Your task to perform on an android device: check android version Image 0: 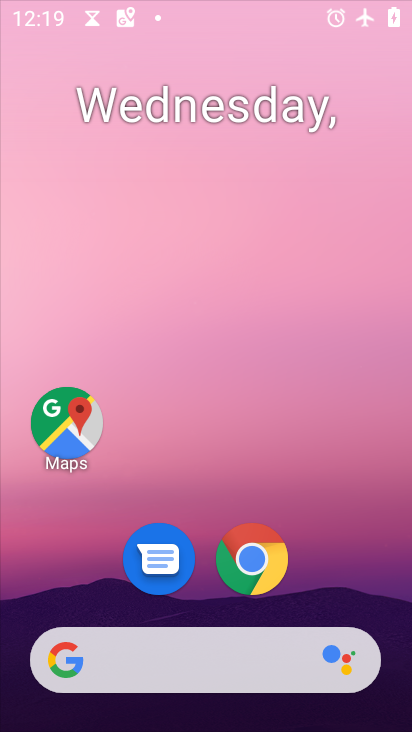
Step 0: press home button
Your task to perform on an android device: check android version Image 1: 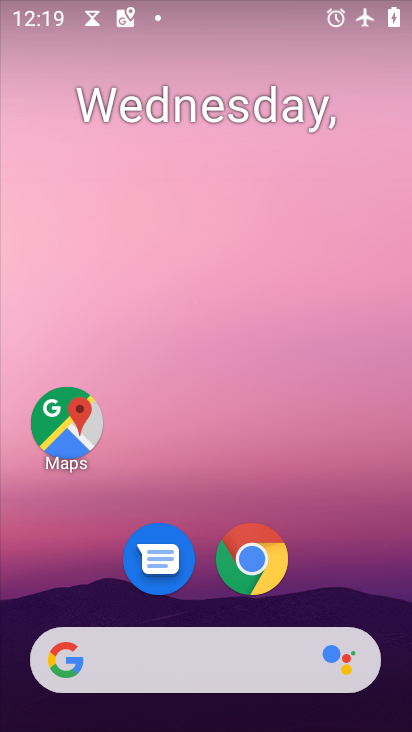
Step 1: drag from (352, 536) to (382, 18)
Your task to perform on an android device: check android version Image 2: 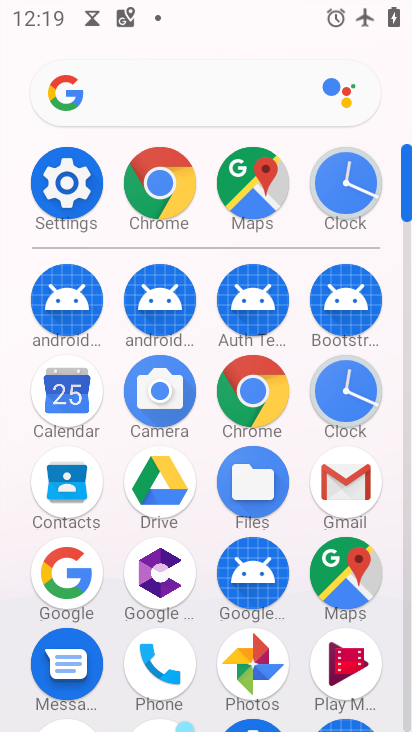
Step 2: click (59, 191)
Your task to perform on an android device: check android version Image 3: 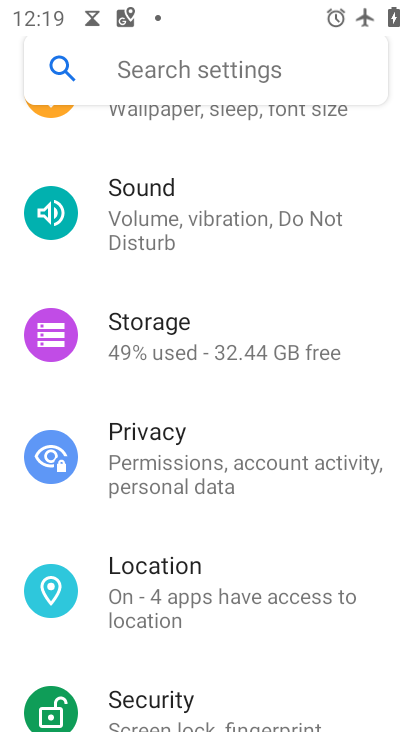
Step 3: drag from (292, 578) to (244, 41)
Your task to perform on an android device: check android version Image 4: 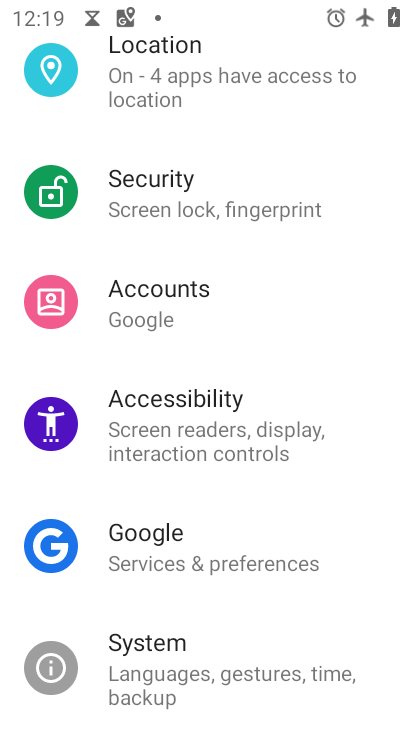
Step 4: drag from (278, 591) to (289, 86)
Your task to perform on an android device: check android version Image 5: 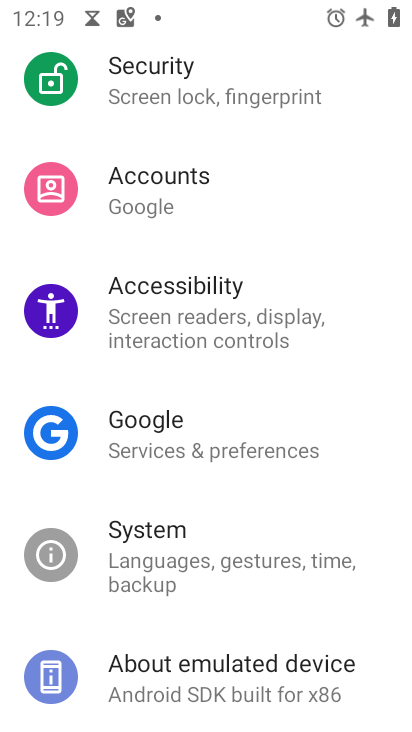
Step 5: click (224, 667)
Your task to perform on an android device: check android version Image 6: 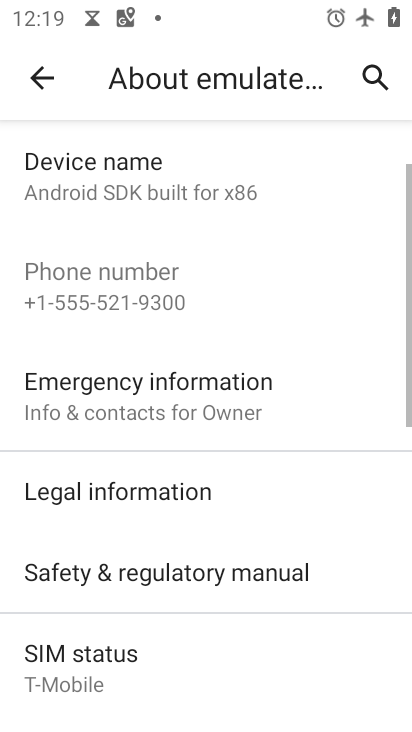
Step 6: drag from (216, 639) to (191, 179)
Your task to perform on an android device: check android version Image 7: 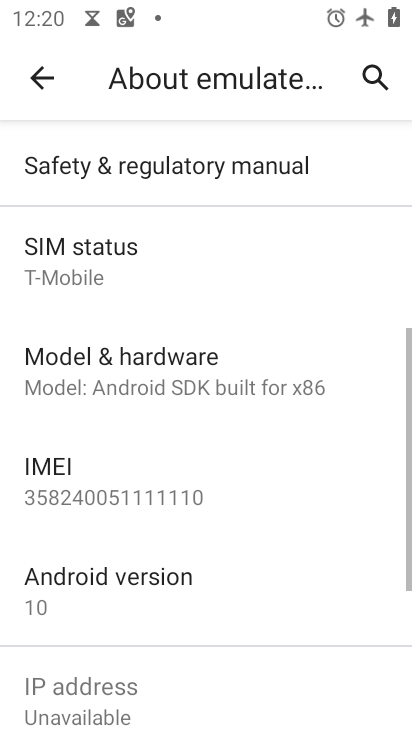
Step 7: click (54, 602)
Your task to perform on an android device: check android version Image 8: 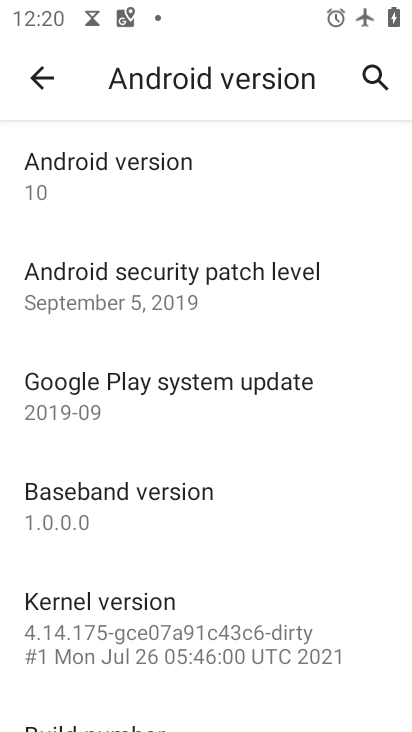
Step 8: click (54, 192)
Your task to perform on an android device: check android version Image 9: 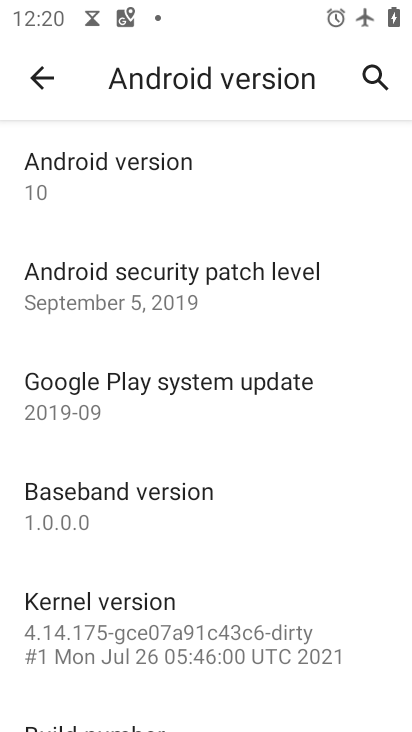
Step 9: click (122, 164)
Your task to perform on an android device: check android version Image 10: 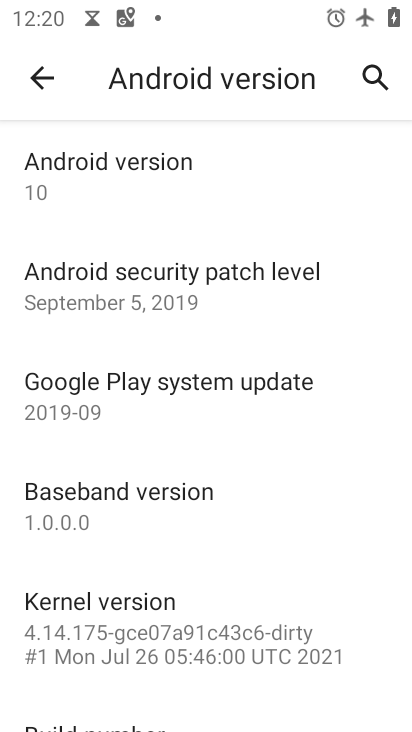
Step 10: task complete